Your task to perform on an android device: toggle data saver in the chrome app Image 0: 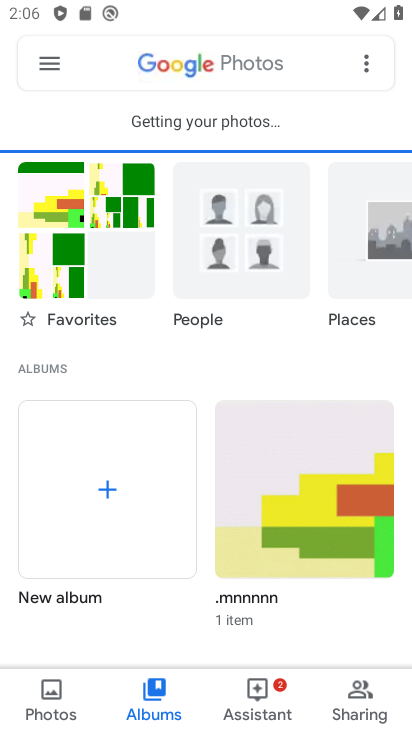
Step 0: press home button
Your task to perform on an android device: toggle data saver in the chrome app Image 1: 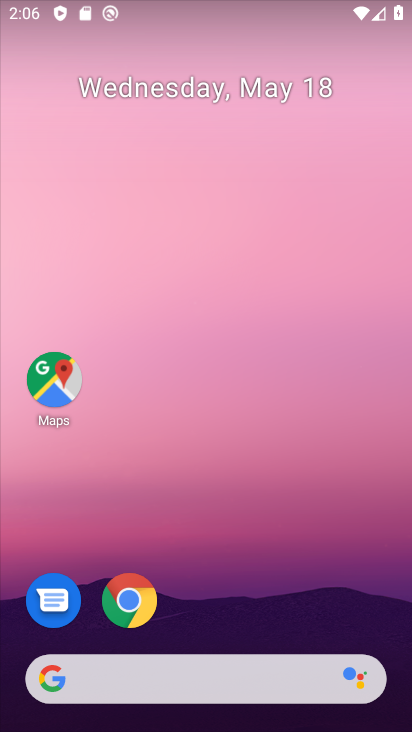
Step 1: click (120, 598)
Your task to perform on an android device: toggle data saver in the chrome app Image 2: 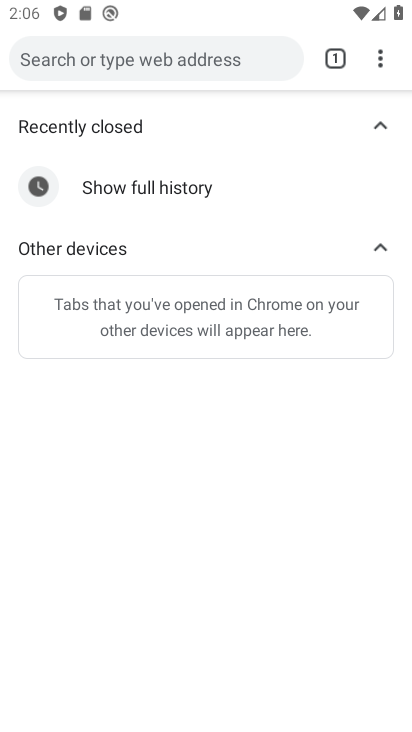
Step 2: drag from (382, 59) to (200, 518)
Your task to perform on an android device: toggle data saver in the chrome app Image 3: 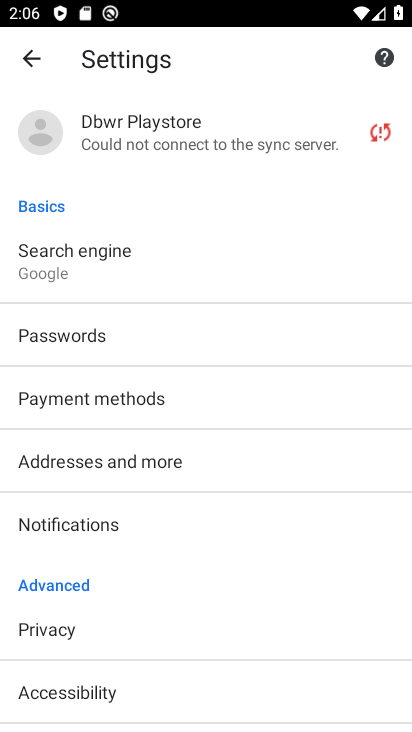
Step 3: drag from (189, 642) to (258, 373)
Your task to perform on an android device: toggle data saver in the chrome app Image 4: 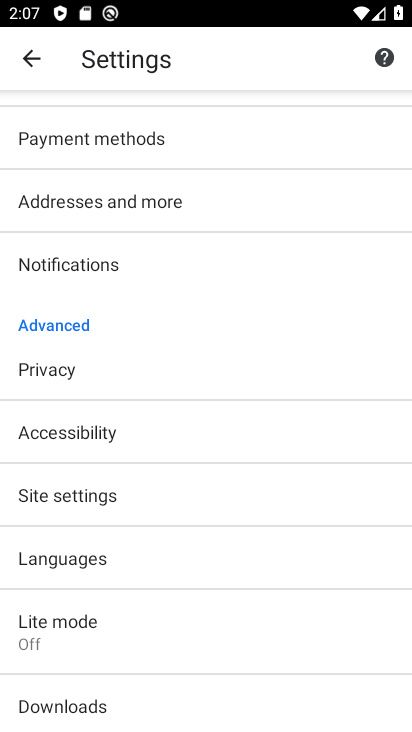
Step 4: click (73, 639)
Your task to perform on an android device: toggle data saver in the chrome app Image 5: 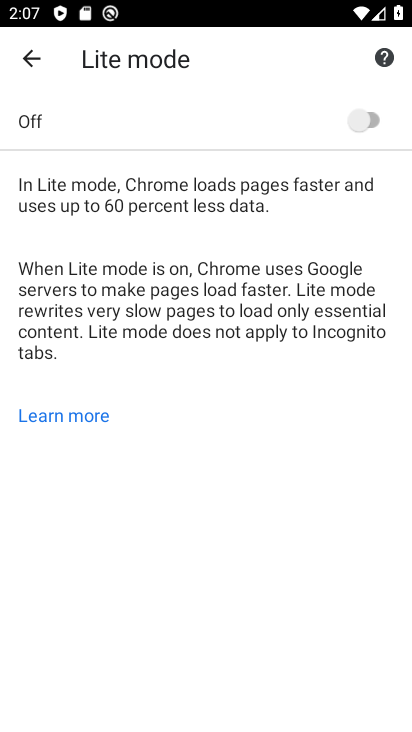
Step 5: click (373, 117)
Your task to perform on an android device: toggle data saver in the chrome app Image 6: 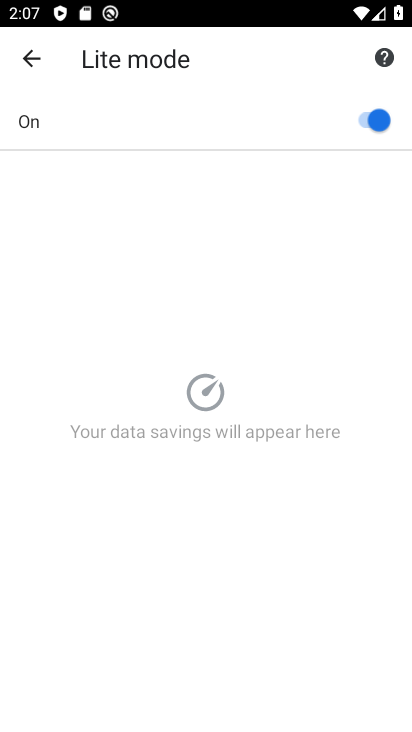
Step 6: task complete